Your task to perform on an android device: open sync settings in chrome Image 0: 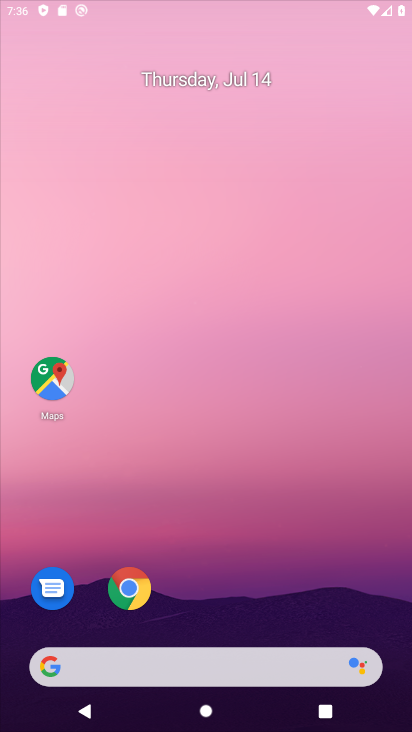
Step 0: click (81, 665)
Your task to perform on an android device: open sync settings in chrome Image 1: 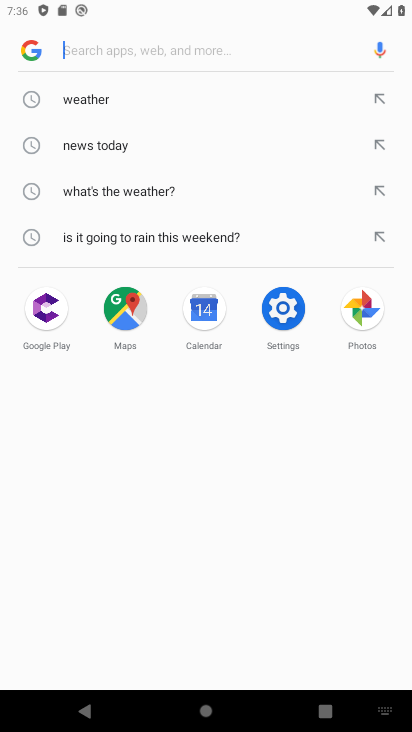
Step 1: click (154, 44)
Your task to perform on an android device: open sync settings in chrome Image 2: 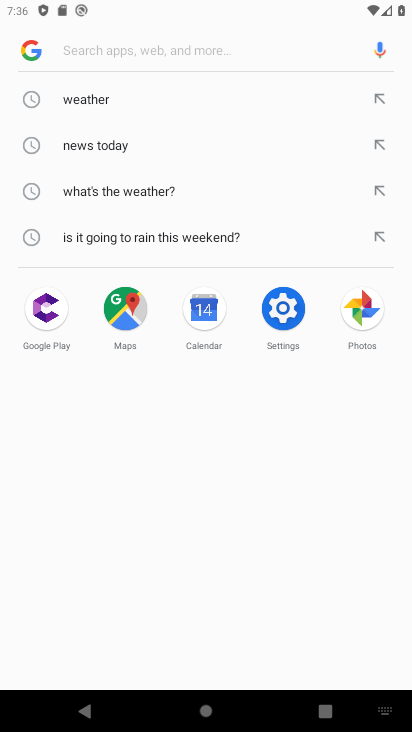
Step 2: press home button
Your task to perform on an android device: open sync settings in chrome Image 3: 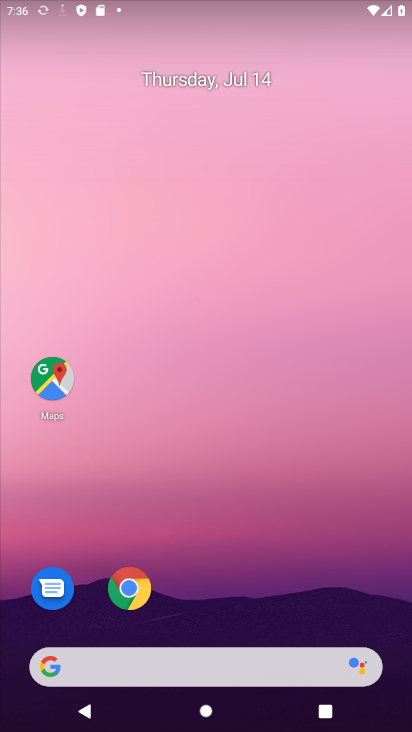
Step 3: click (112, 594)
Your task to perform on an android device: open sync settings in chrome Image 4: 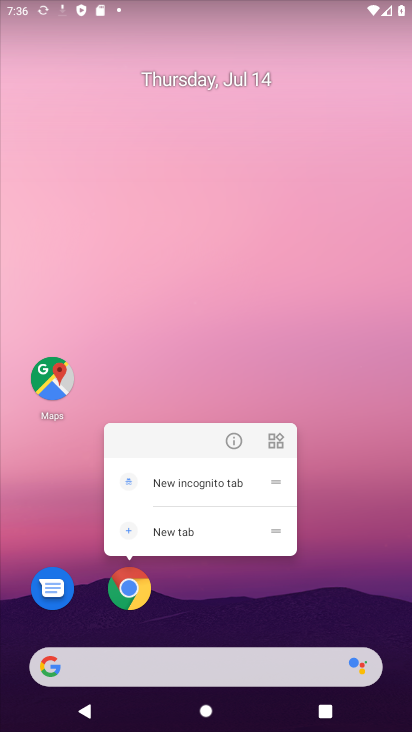
Step 4: click (117, 591)
Your task to perform on an android device: open sync settings in chrome Image 5: 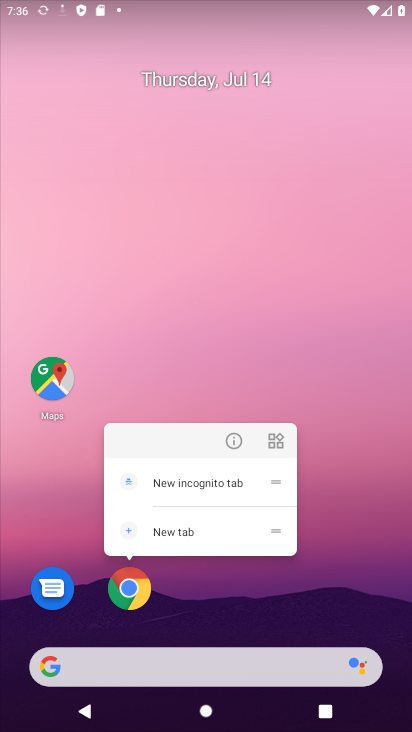
Step 5: task complete